Your task to perform on an android device: Go to network settings Image 0: 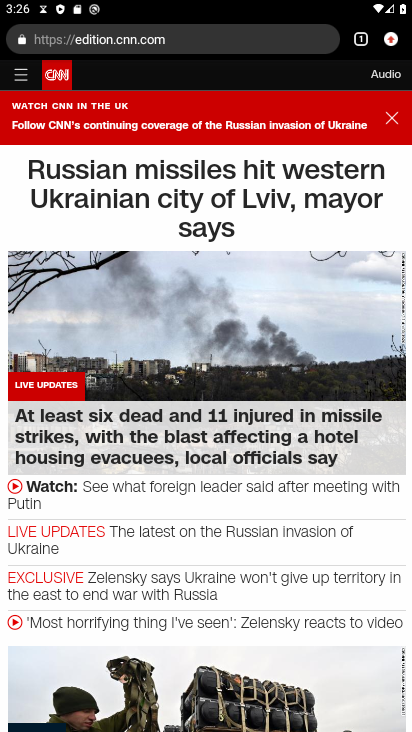
Step 0: press home button
Your task to perform on an android device: Go to network settings Image 1: 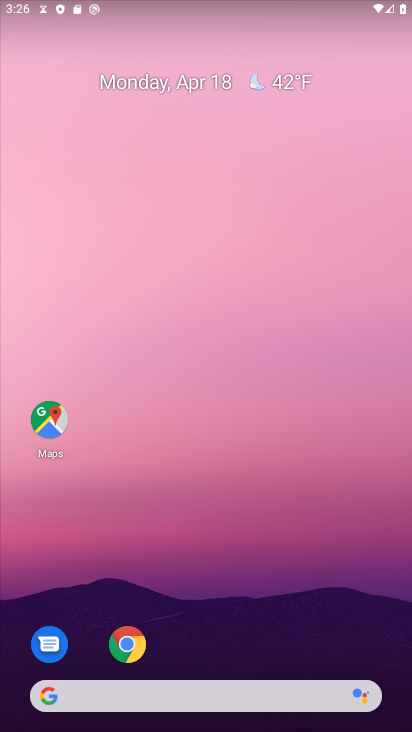
Step 1: drag from (260, 599) to (278, 84)
Your task to perform on an android device: Go to network settings Image 2: 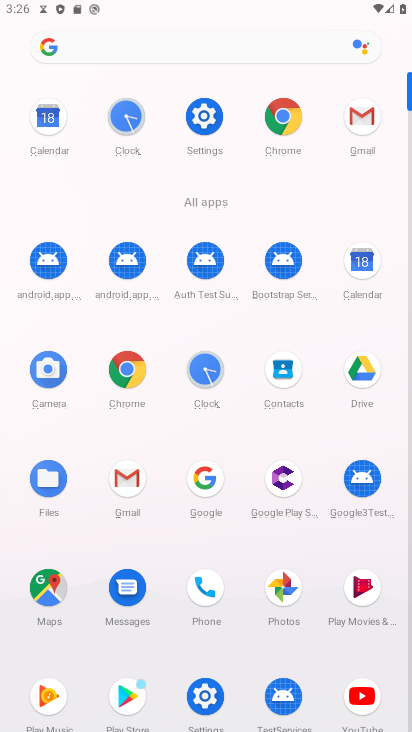
Step 2: click (198, 115)
Your task to perform on an android device: Go to network settings Image 3: 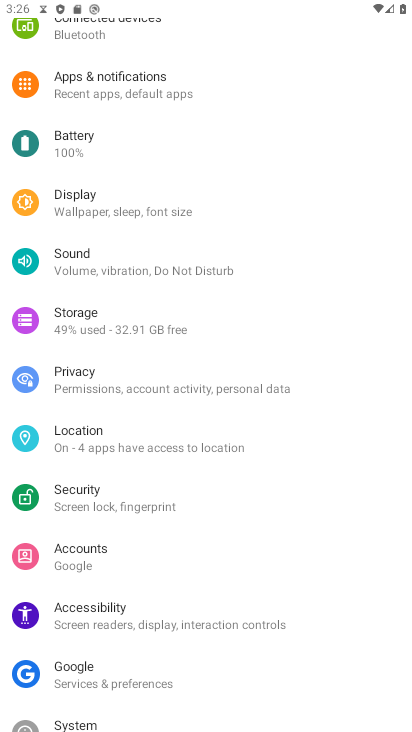
Step 3: drag from (218, 63) to (204, 486)
Your task to perform on an android device: Go to network settings Image 4: 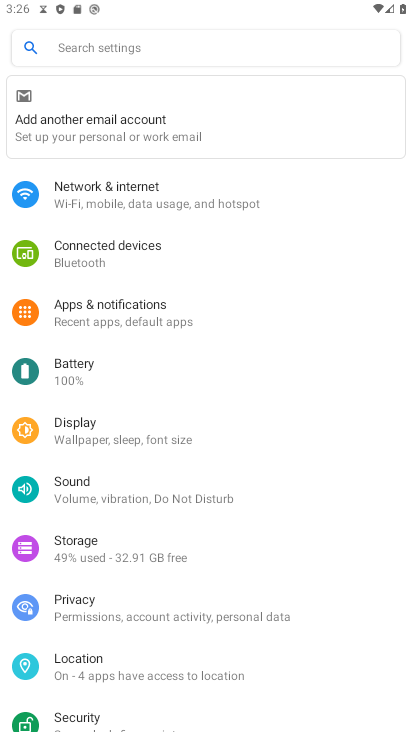
Step 4: click (165, 188)
Your task to perform on an android device: Go to network settings Image 5: 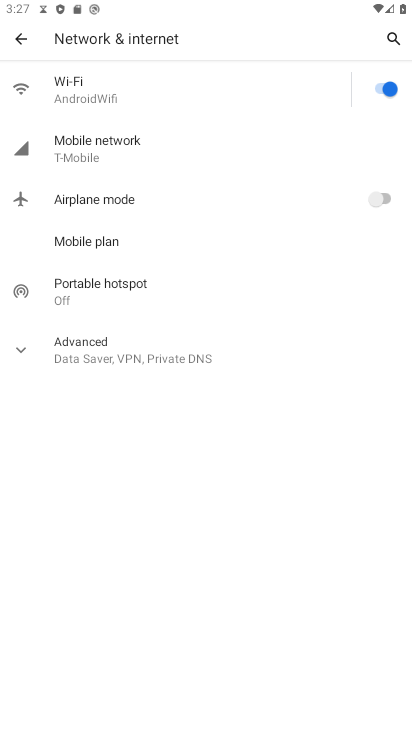
Step 5: task complete